Your task to perform on an android device: change the clock display to analog Image 0: 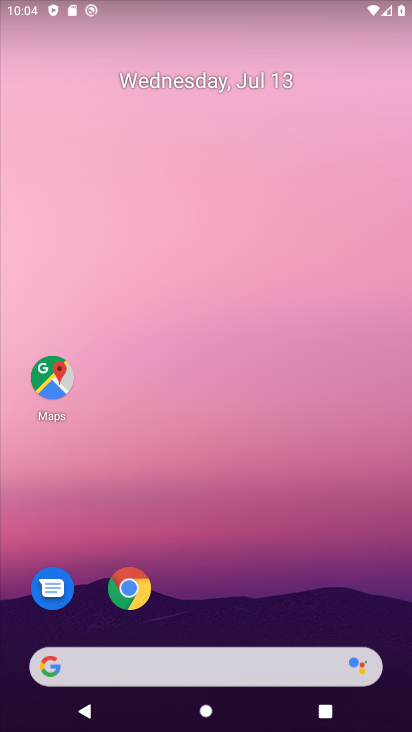
Step 0: drag from (144, 644) to (240, 10)
Your task to perform on an android device: change the clock display to analog Image 1: 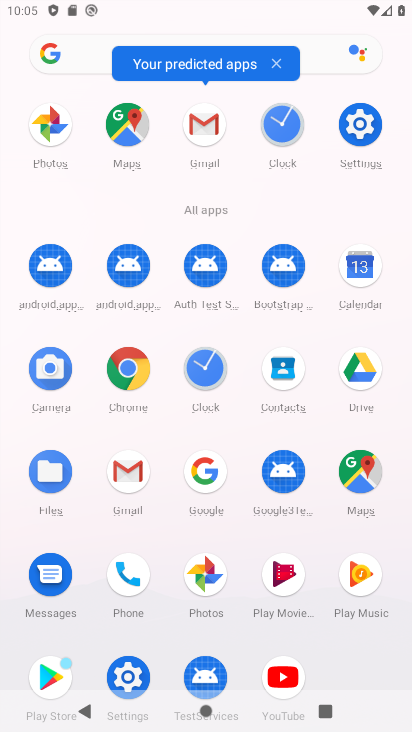
Step 1: click (206, 375)
Your task to perform on an android device: change the clock display to analog Image 2: 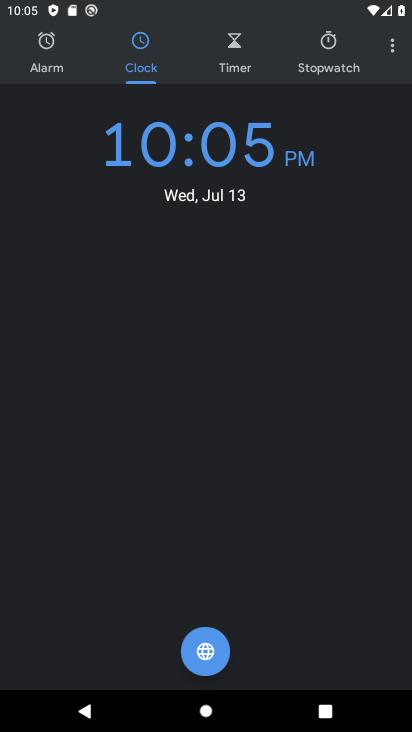
Step 2: click (390, 44)
Your task to perform on an android device: change the clock display to analog Image 3: 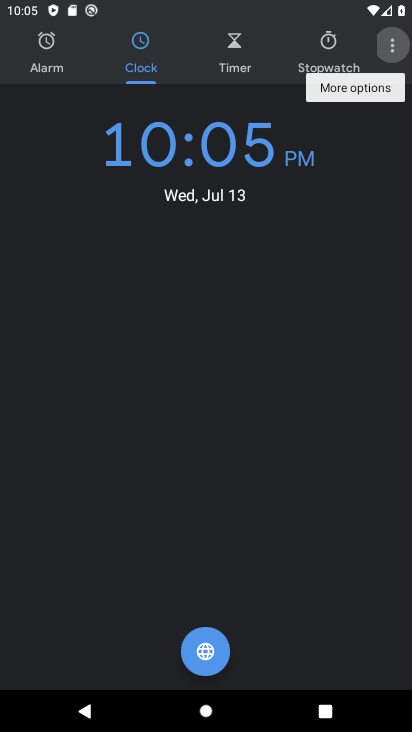
Step 3: click (390, 43)
Your task to perform on an android device: change the clock display to analog Image 4: 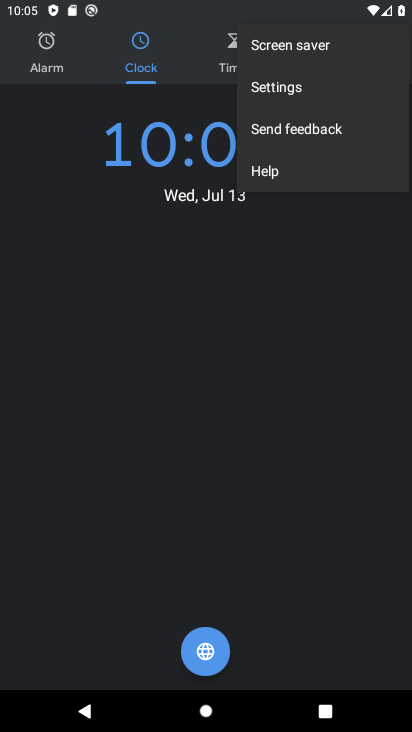
Step 4: click (369, 79)
Your task to perform on an android device: change the clock display to analog Image 5: 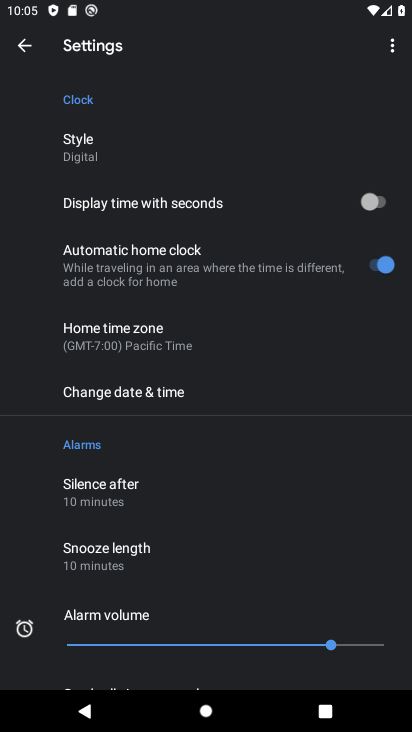
Step 5: click (88, 148)
Your task to perform on an android device: change the clock display to analog Image 6: 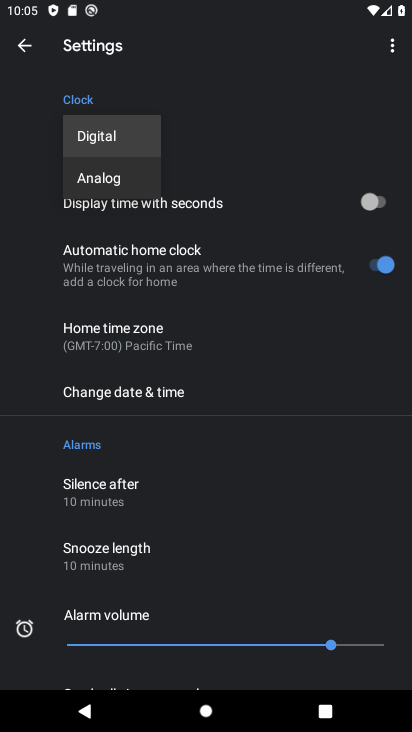
Step 6: click (126, 180)
Your task to perform on an android device: change the clock display to analog Image 7: 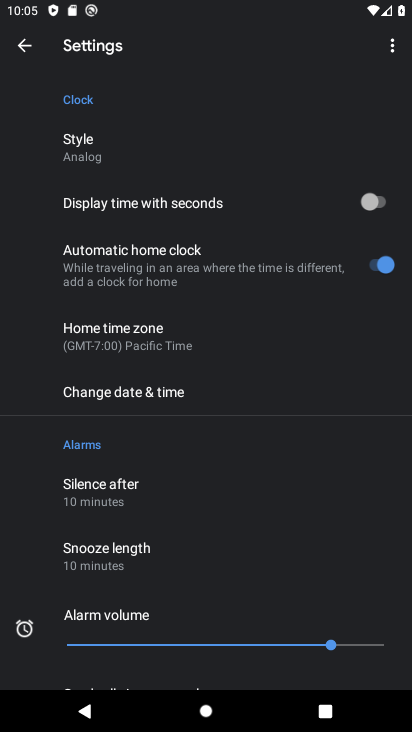
Step 7: task complete